Your task to perform on an android device: Open Amazon Image 0: 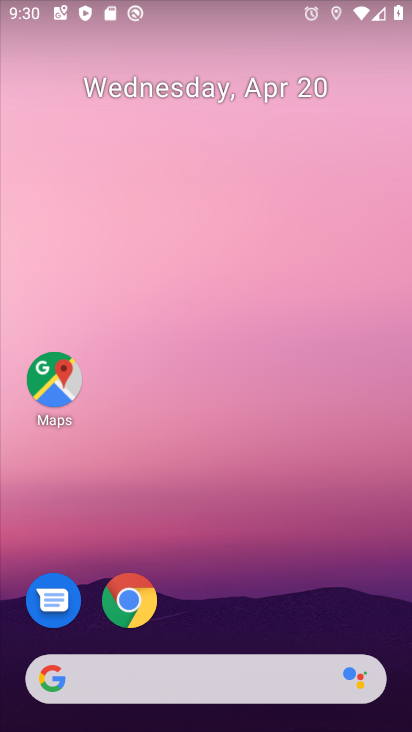
Step 0: click (139, 602)
Your task to perform on an android device: Open Amazon Image 1: 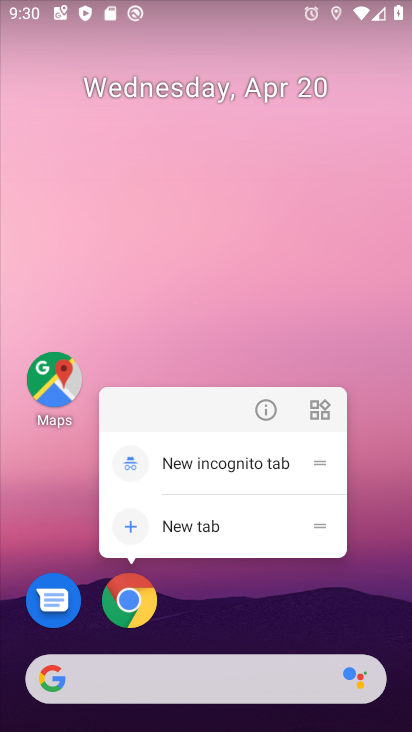
Step 1: click (128, 595)
Your task to perform on an android device: Open Amazon Image 2: 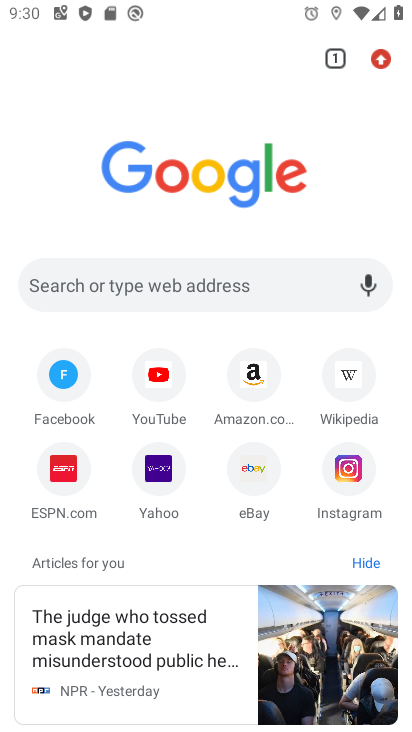
Step 2: click (245, 387)
Your task to perform on an android device: Open Amazon Image 3: 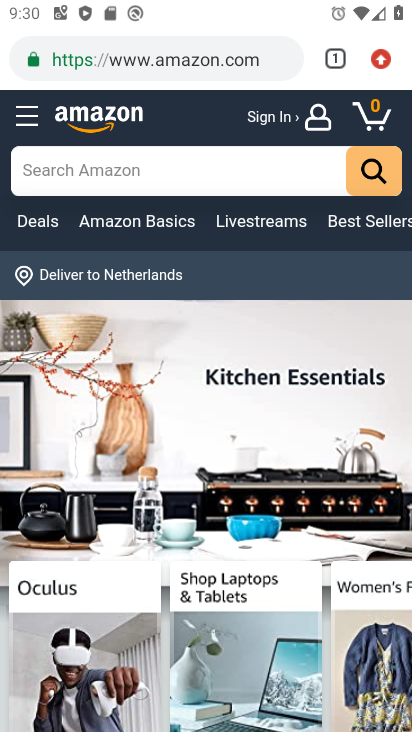
Step 3: task complete